Your task to perform on an android device: allow cookies in the chrome app Image 0: 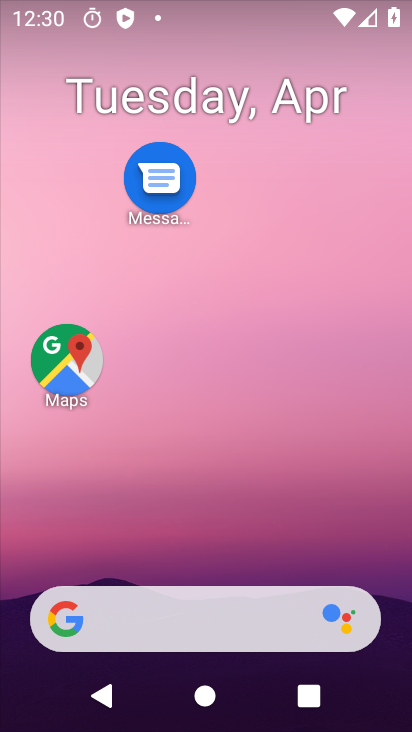
Step 0: drag from (204, 721) to (201, 81)
Your task to perform on an android device: allow cookies in the chrome app Image 1: 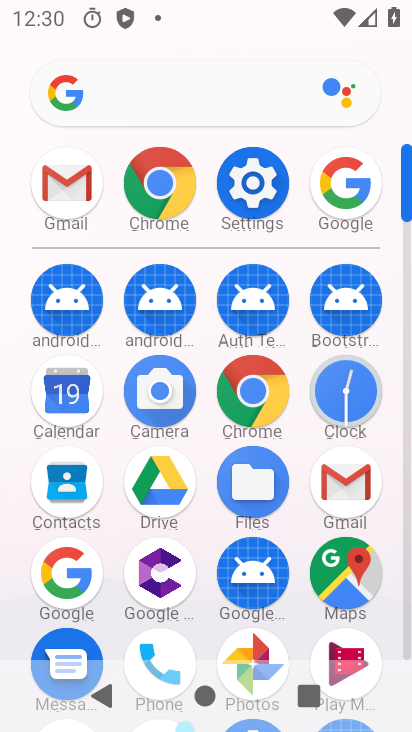
Step 1: click (156, 179)
Your task to perform on an android device: allow cookies in the chrome app Image 2: 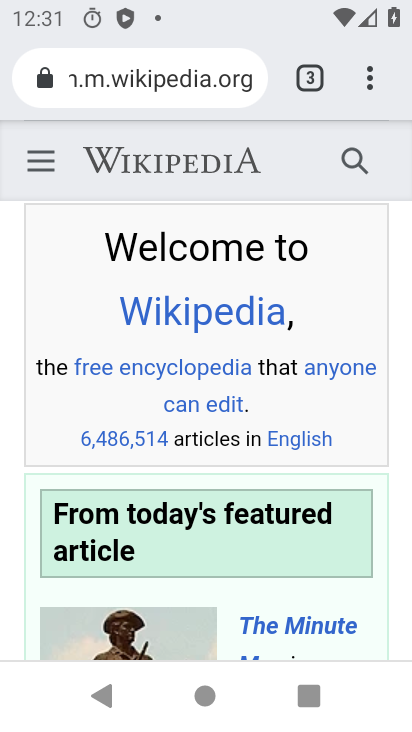
Step 2: click (370, 74)
Your task to perform on an android device: allow cookies in the chrome app Image 3: 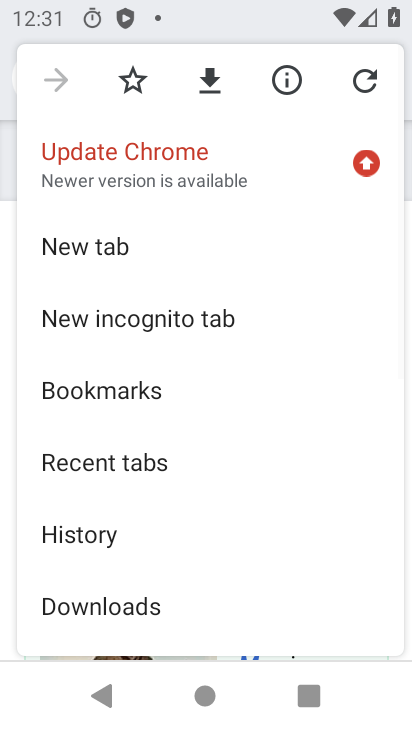
Step 3: drag from (178, 548) to (155, 187)
Your task to perform on an android device: allow cookies in the chrome app Image 4: 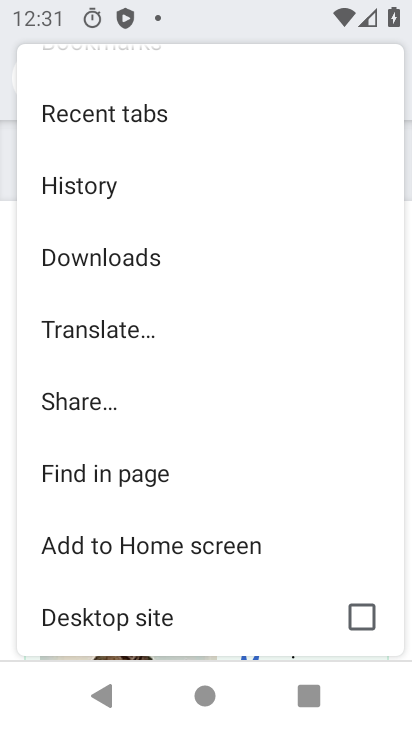
Step 4: drag from (128, 573) to (131, 181)
Your task to perform on an android device: allow cookies in the chrome app Image 5: 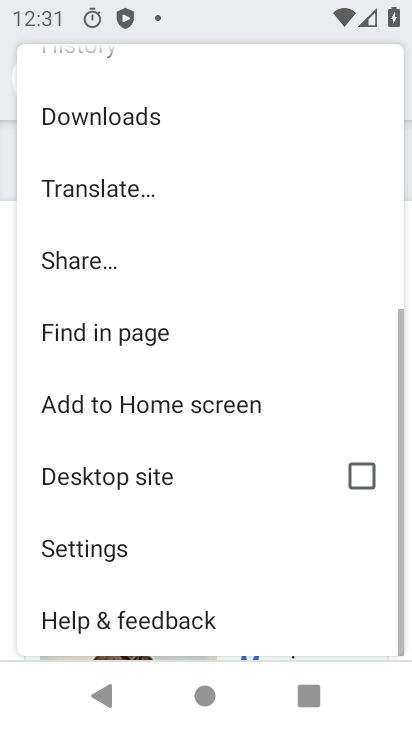
Step 5: click (101, 551)
Your task to perform on an android device: allow cookies in the chrome app Image 6: 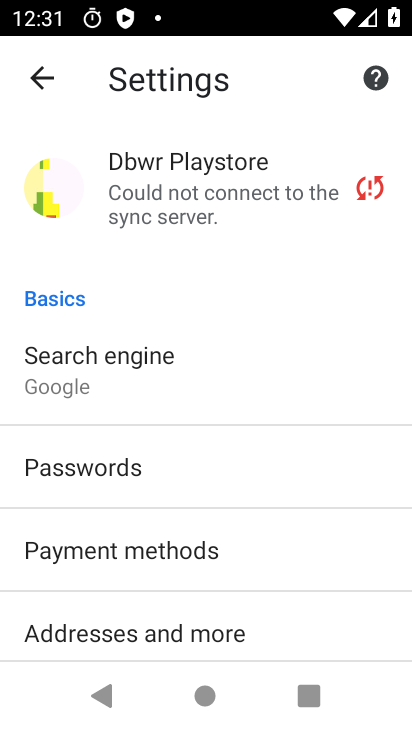
Step 6: drag from (167, 625) to (191, 154)
Your task to perform on an android device: allow cookies in the chrome app Image 7: 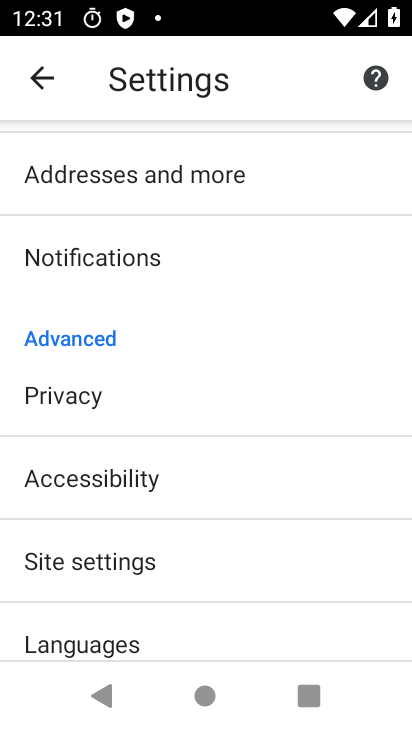
Step 7: drag from (169, 572) to (173, 157)
Your task to perform on an android device: allow cookies in the chrome app Image 8: 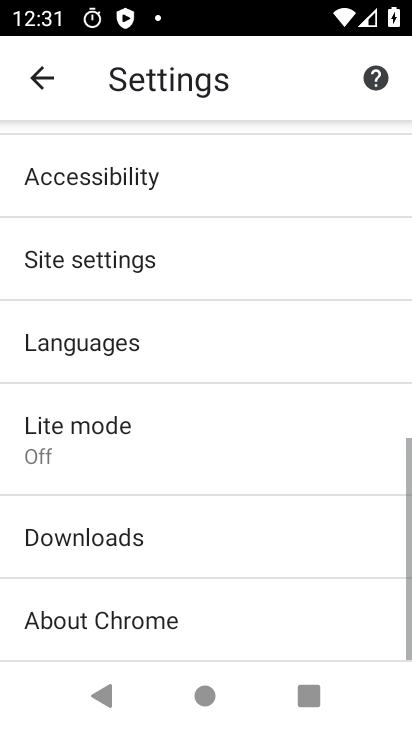
Step 8: click (94, 257)
Your task to perform on an android device: allow cookies in the chrome app Image 9: 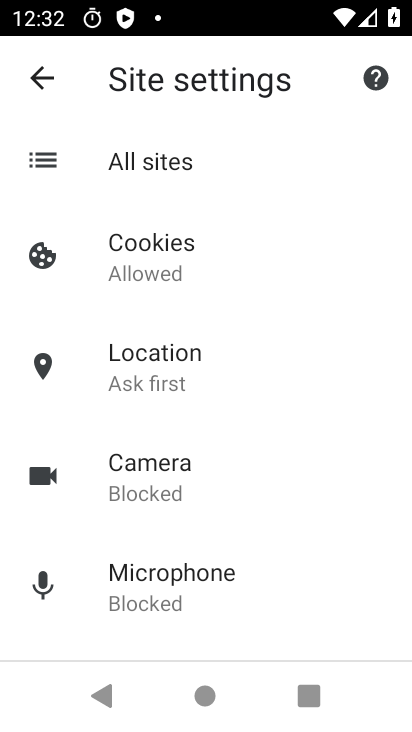
Step 9: click (161, 231)
Your task to perform on an android device: allow cookies in the chrome app Image 10: 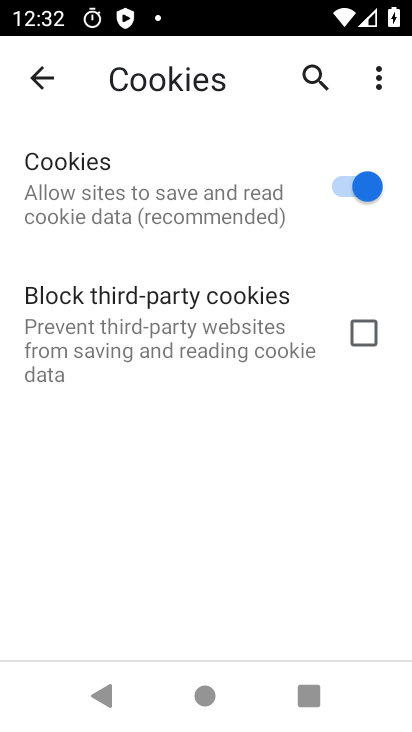
Step 10: task complete